Your task to perform on an android device: Open Google Maps Image 0: 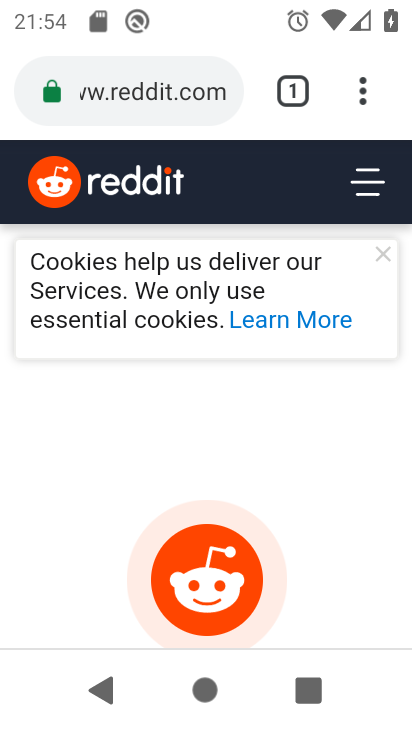
Step 0: press home button
Your task to perform on an android device: Open Google Maps Image 1: 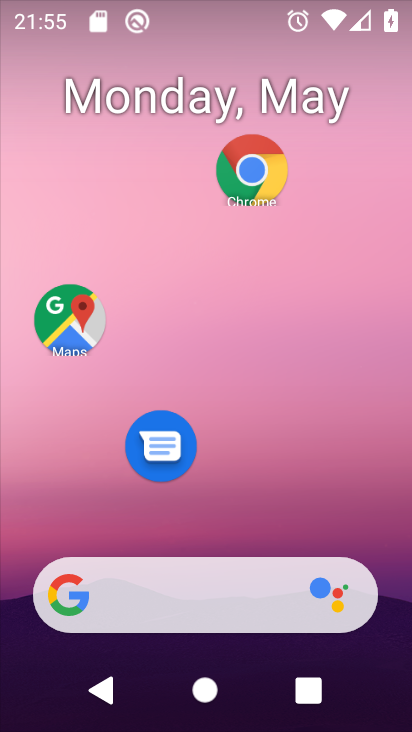
Step 1: click (67, 318)
Your task to perform on an android device: Open Google Maps Image 2: 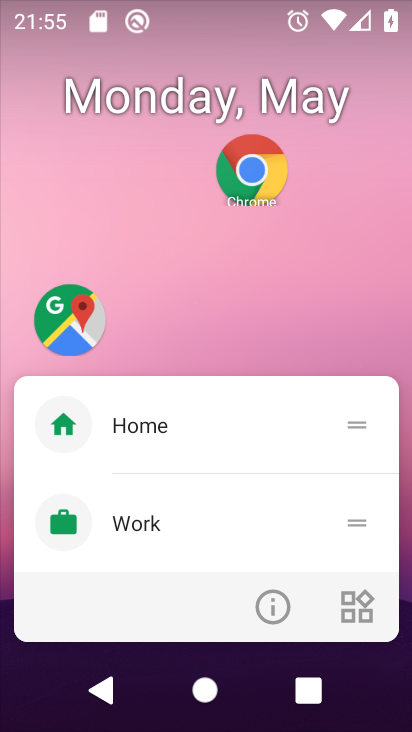
Step 2: click (66, 321)
Your task to perform on an android device: Open Google Maps Image 3: 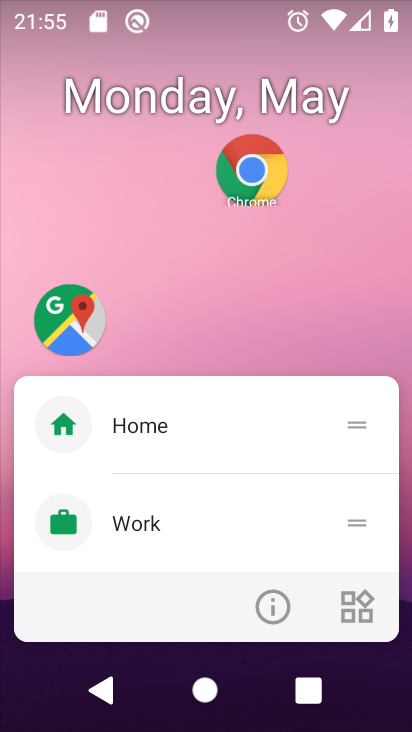
Step 3: click (69, 319)
Your task to perform on an android device: Open Google Maps Image 4: 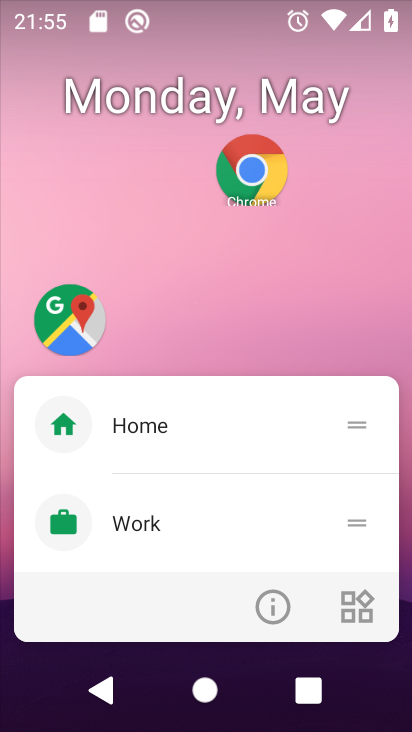
Step 4: click (58, 311)
Your task to perform on an android device: Open Google Maps Image 5: 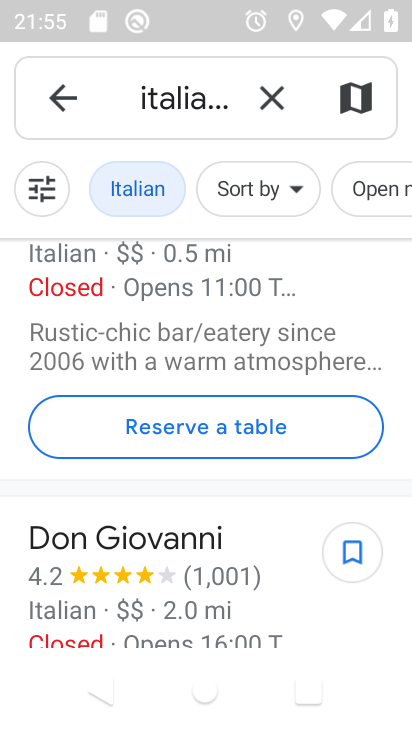
Step 5: click (268, 85)
Your task to perform on an android device: Open Google Maps Image 6: 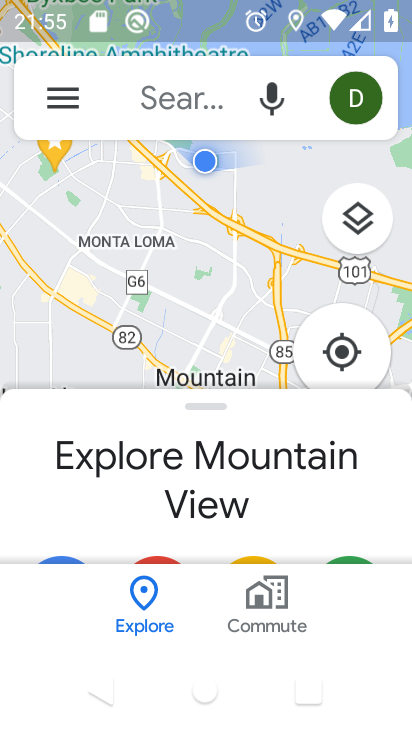
Step 6: task complete